Your task to perform on an android device: change the upload size in google photos Image 0: 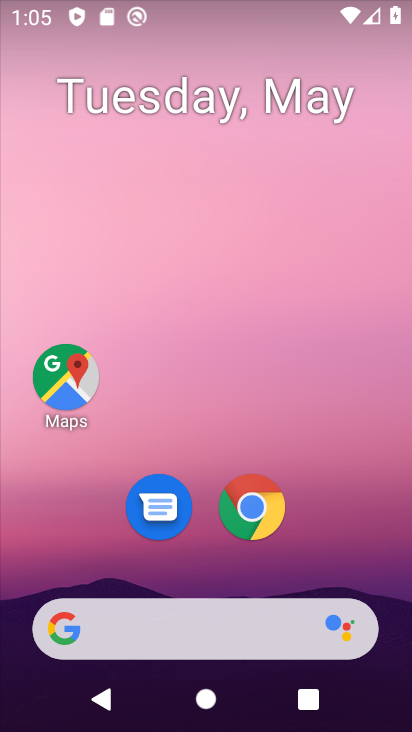
Step 0: drag from (398, 606) to (314, 178)
Your task to perform on an android device: change the upload size in google photos Image 1: 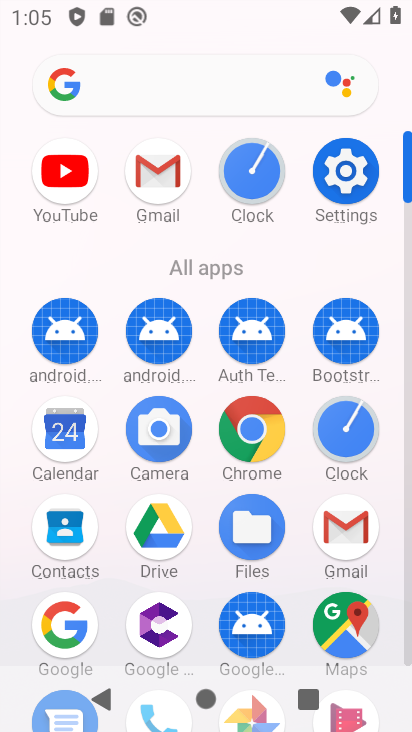
Step 1: click (407, 660)
Your task to perform on an android device: change the upload size in google photos Image 2: 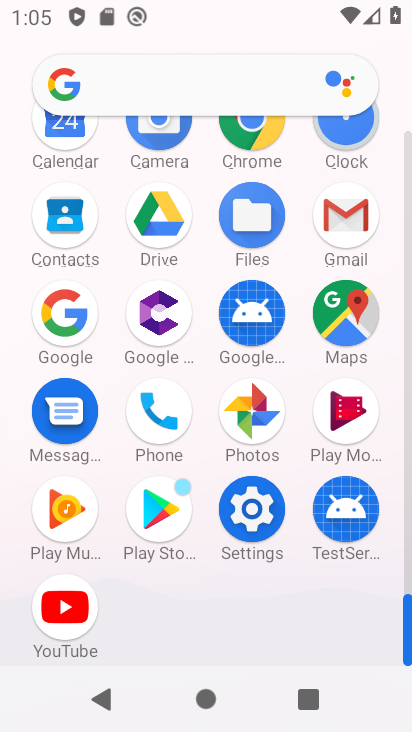
Step 2: click (248, 404)
Your task to perform on an android device: change the upload size in google photos Image 3: 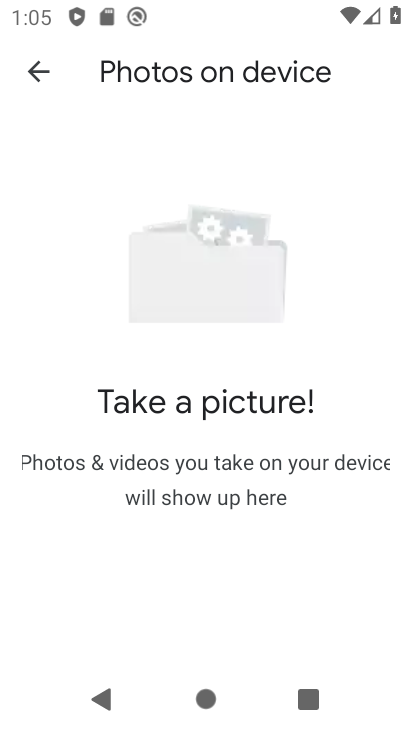
Step 3: click (41, 72)
Your task to perform on an android device: change the upload size in google photos Image 4: 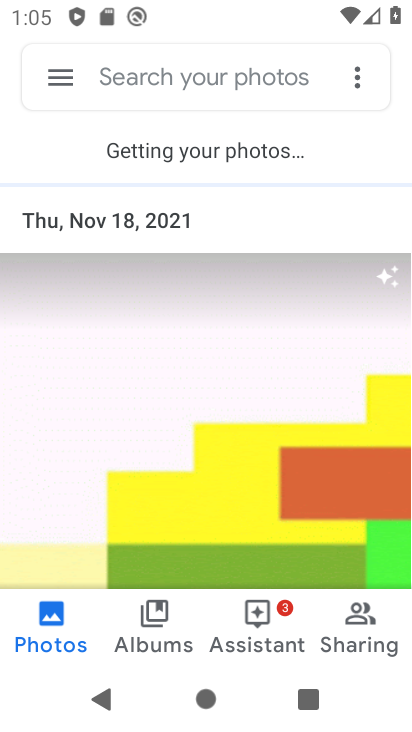
Step 4: click (59, 67)
Your task to perform on an android device: change the upload size in google photos Image 5: 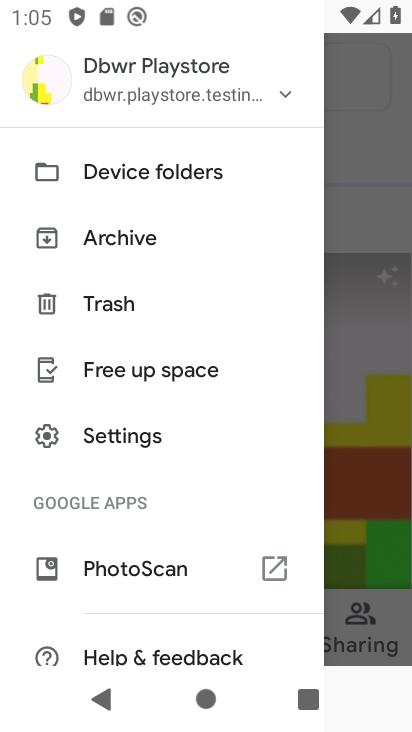
Step 5: click (164, 442)
Your task to perform on an android device: change the upload size in google photos Image 6: 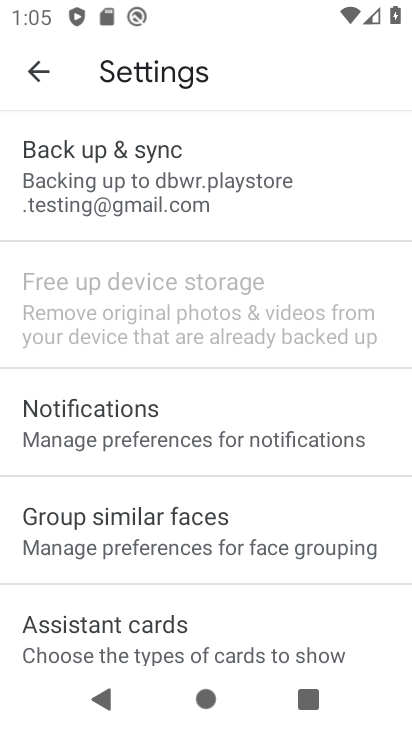
Step 6: click (169, 166)
Your task to perform on an android device: change the upload size in google photos Image 7: 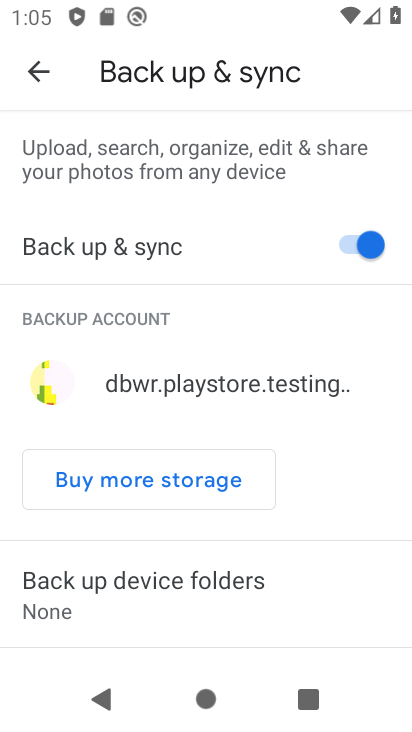
Step 7: drag from (229, 622) to (195, 142)
Your task to perform on an android device: change the upload size in google photos Image 8: 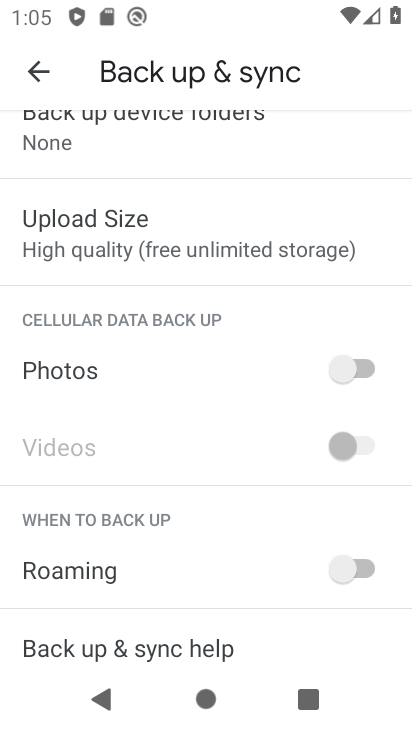
Step 8: click (204, 229)
Your task to perform on an android device: change the upload size in google photos Image 9: 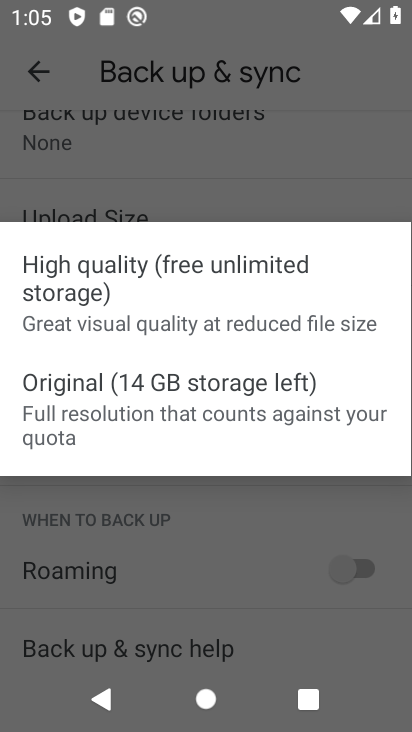
Step 9: click (259, 370)
Your task to perform on an android device: change the upload size in google photos Image 10: 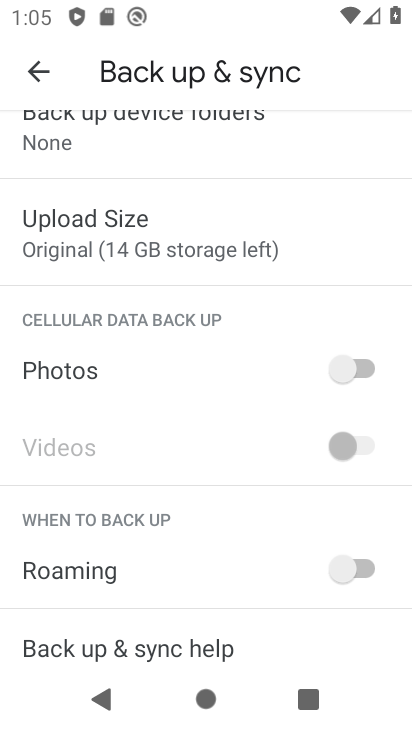
Step 10: task complete